Your task to perform on an android device: Show me recent news Image 0: 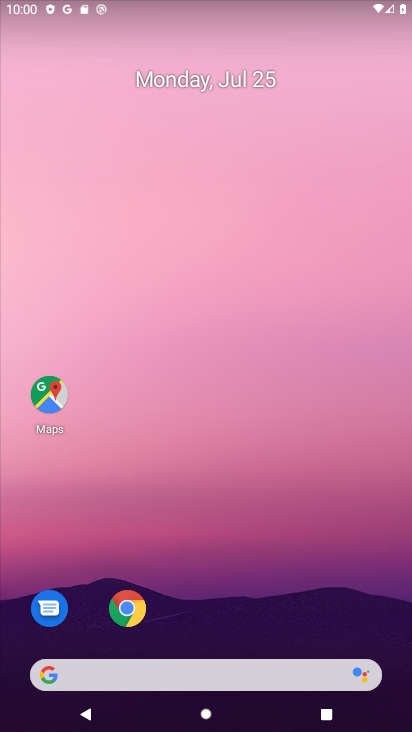
Step 0: click (132, 615)
Your task to perform on an android device: Show me recent news Image 1: 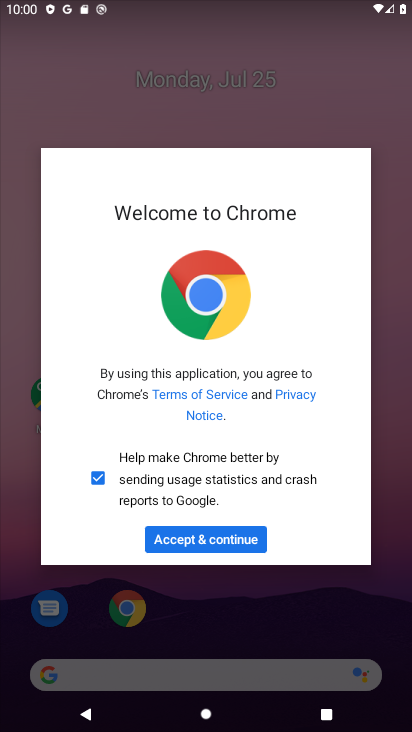
Step 1: click (210, 546)
Your task to perform on an android device: Show me recent news Image 2: 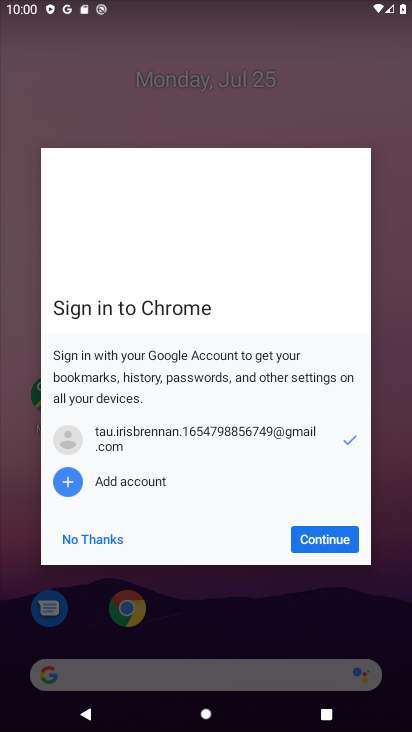
Step 2: click (309, 537)
Your task to perform on an android device: Show me recent news Image 3: 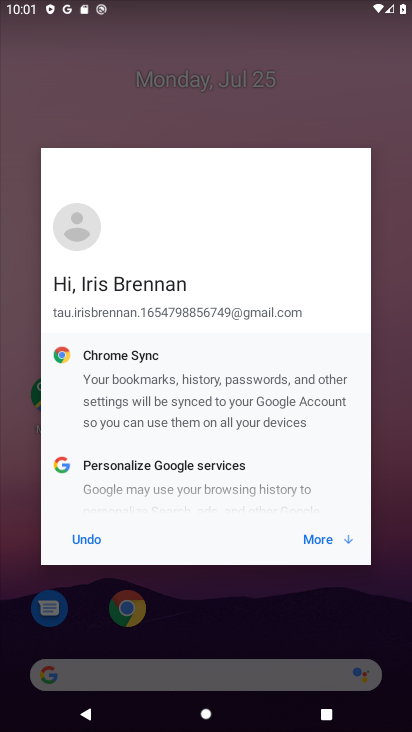
Step 3: click (309, 537)
Your task to perform on an android device: Show me recent news Image 4: 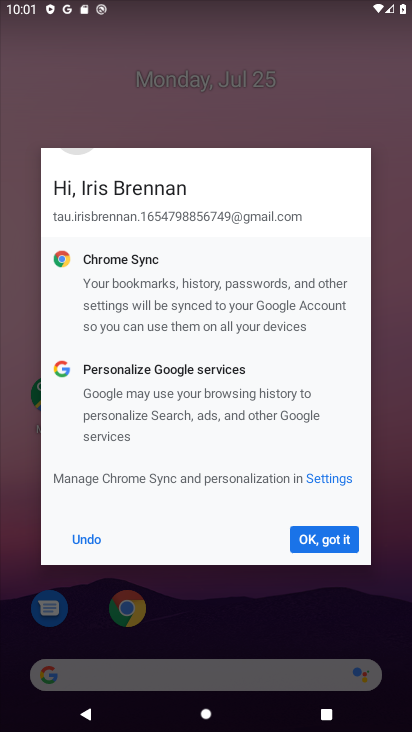
Step 4: click (309, 537)
Your task to perform on an android device: Show me recent news Image 5: 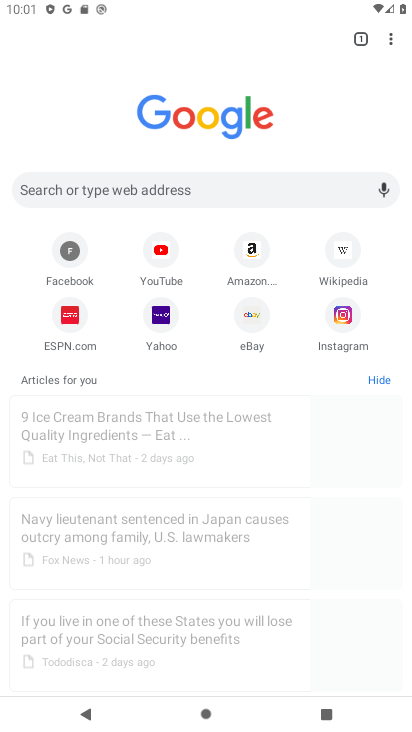
Step 5: click (255, 181)
Your task to perform on an android device: Show me recent news Image 6: 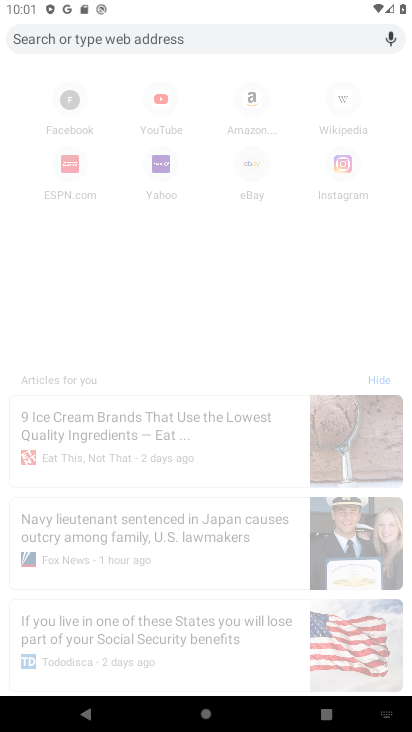
Step 6: type "Show me recent news "
Your task to perform on an android device: Show me recent news Image 7: 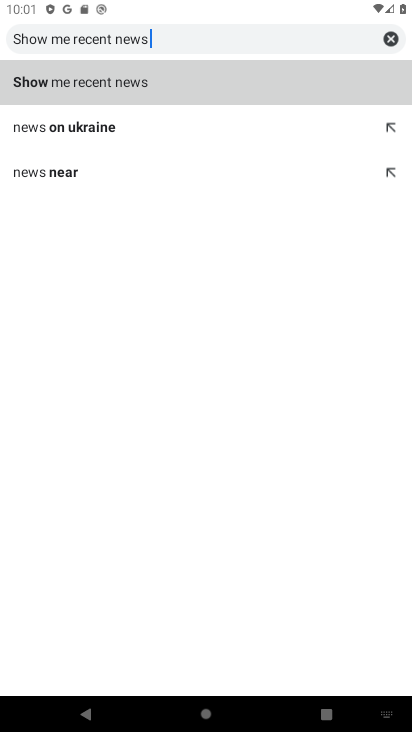
Step 7: click (180, 87)
Your task to perform on an android device: Show me recent news Image 8: 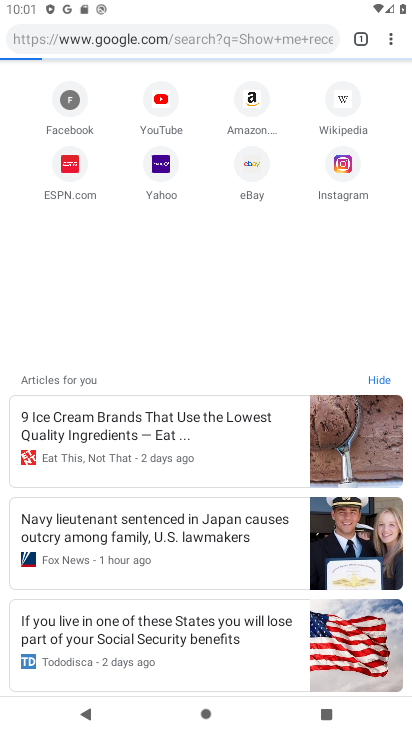
Step 8: task complete